Your task to perform on an android device: Show me popular videos on Youtube Image 0: 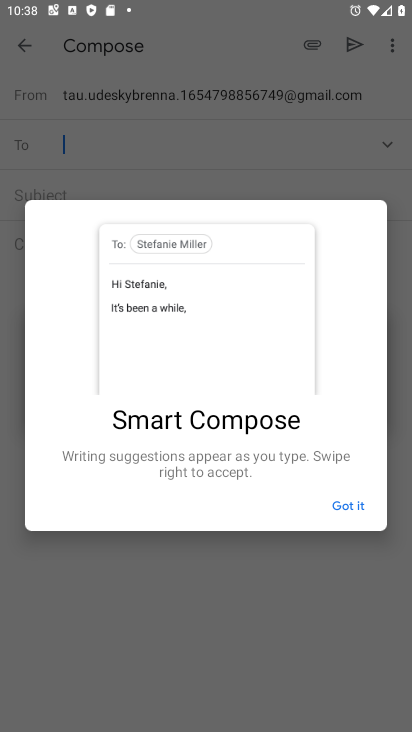
Step 0: press home button
Your task to perform on an android device: Show me popular videos on Youtube Image 1: 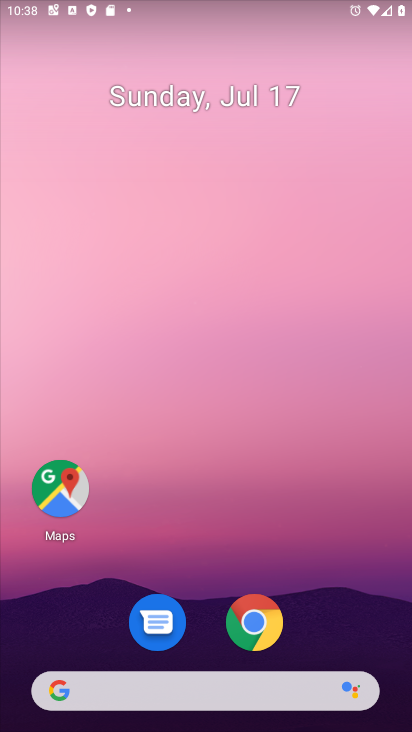
Step 1: drag from (246, 726) to (290, 31)
Your task to perform on an android device: Show me popular videos on Youtube Image 2: 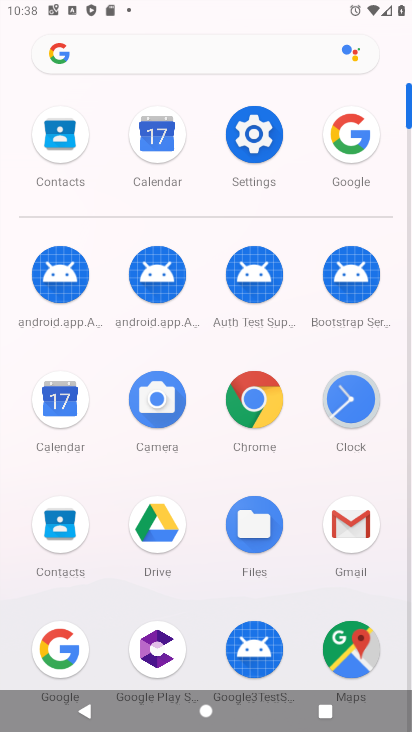
Step 2: drag from (277, 581) to (212, 97)
Your task to perform on an android device: Show me popular videos on Youtube Image 3: 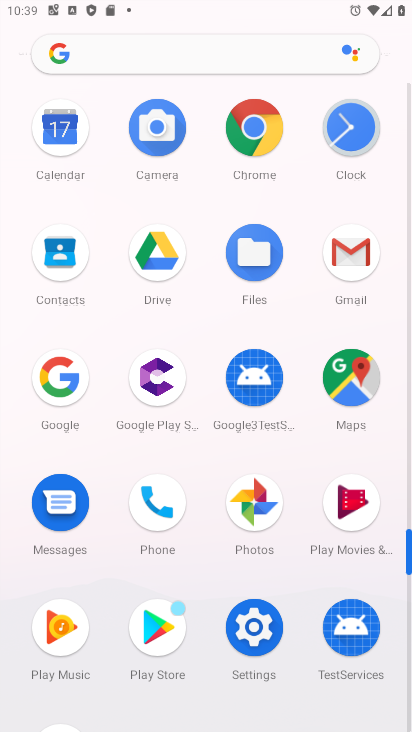
Step 3: drag from (265, 626) to (231, 133)
Your task to perform on an android device: Show me popular videos on Youtube Image 4: 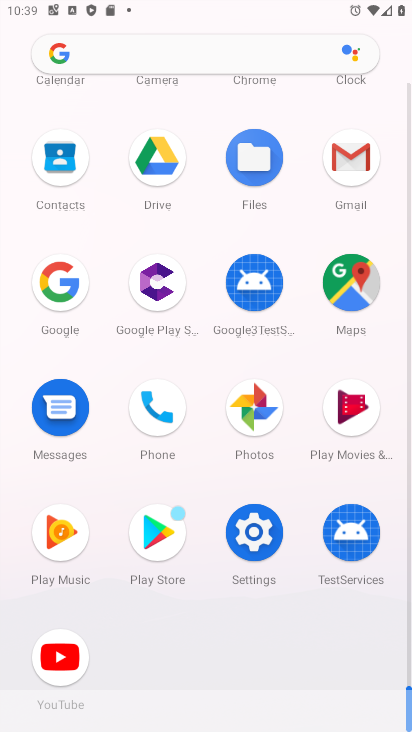
Step 4: click (46, 652)
Your task to perform on an android device: Show me popular videos on Youtube Image 5: 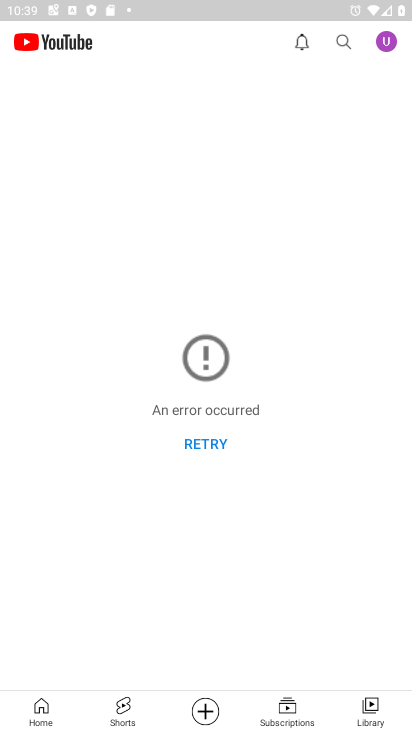
Step 5: click (47, 702)
Your task to perform on an android device: Show me popular videos on Youtube Image 6: 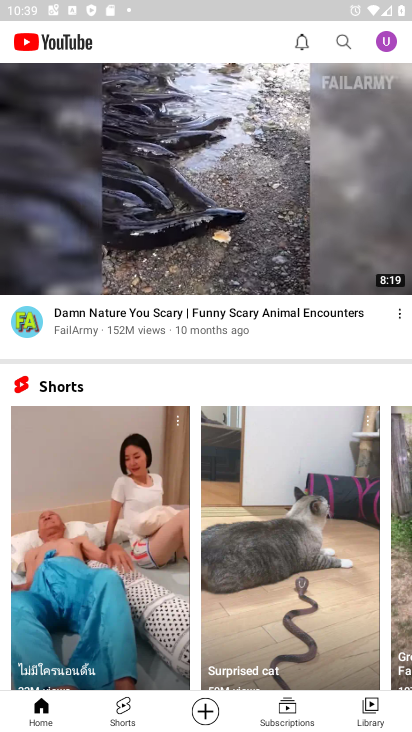
Step 6: task complete